Your task to perform on an android device: turn on javascript in the chrome app Image 0: 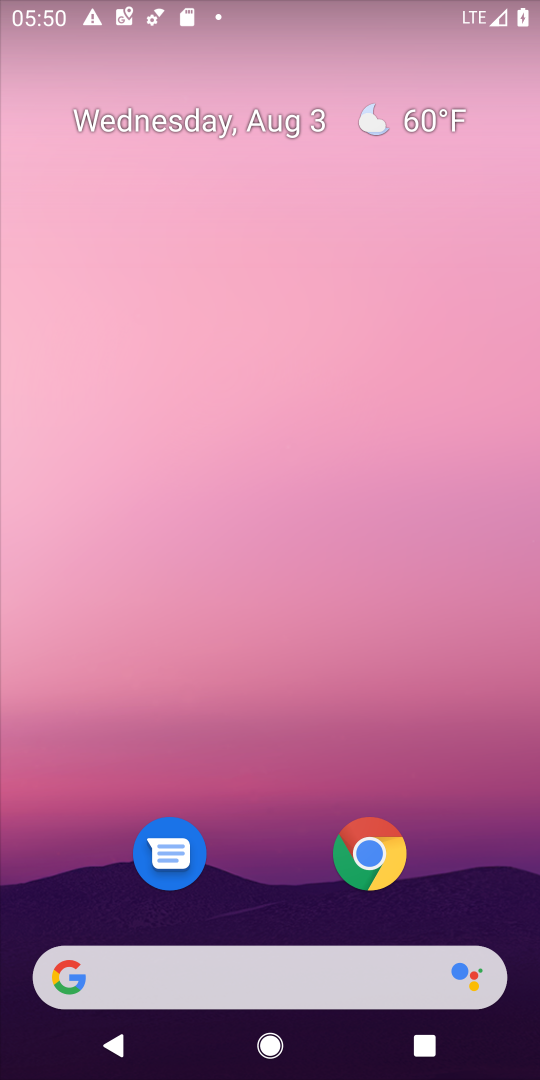
Step 0: click (367, 861)
Your task to perform on an android device: turn on javascript in the chrome app Image 1: 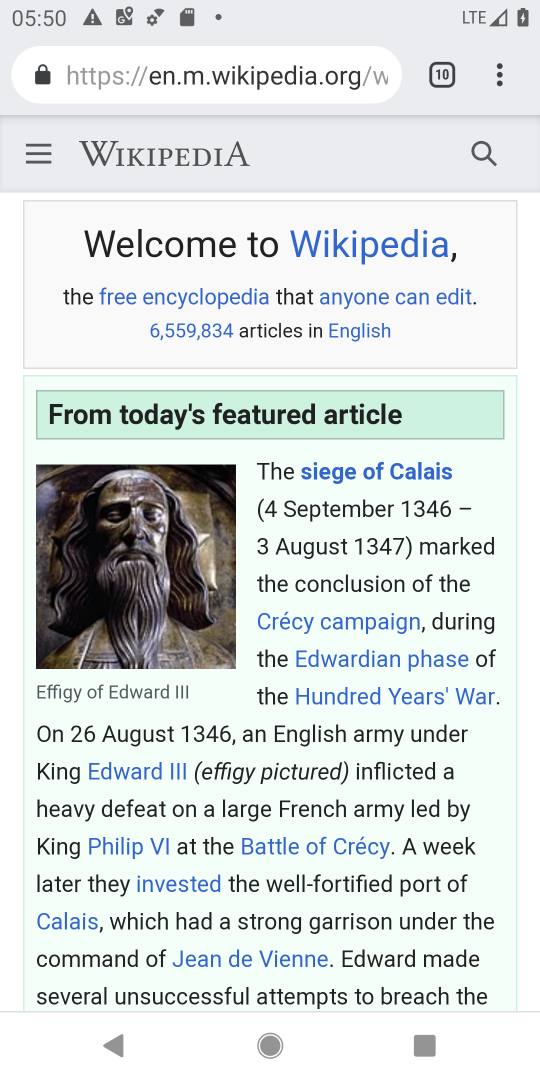
Step 1: click (502, 79)
Your task to perform on an android device: turn on javascript in the chrome app Image 2: 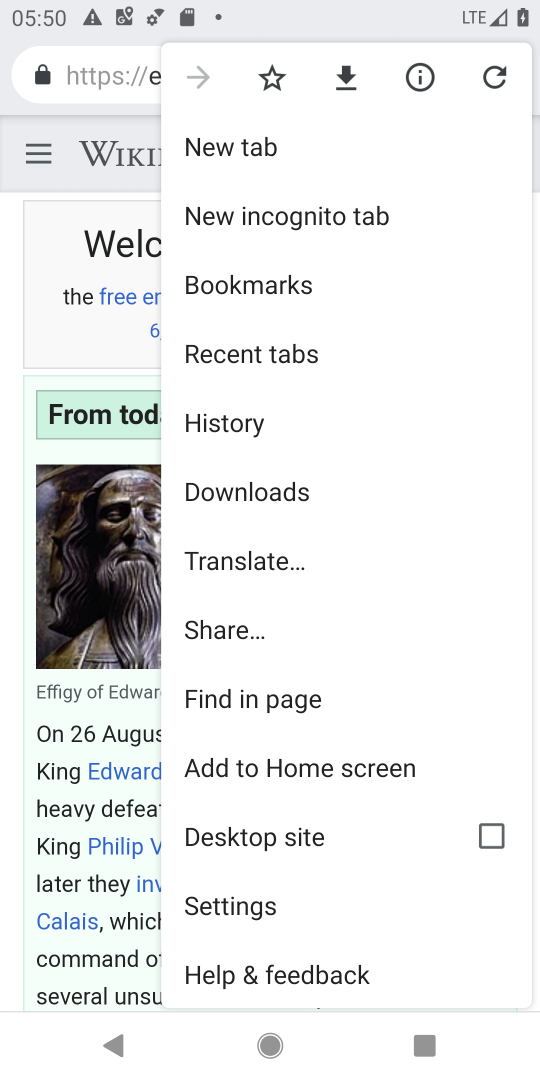
Step 2: click (228, 906)
Your task to perform on an android device: turn on javascript in the chrome app Image 3: 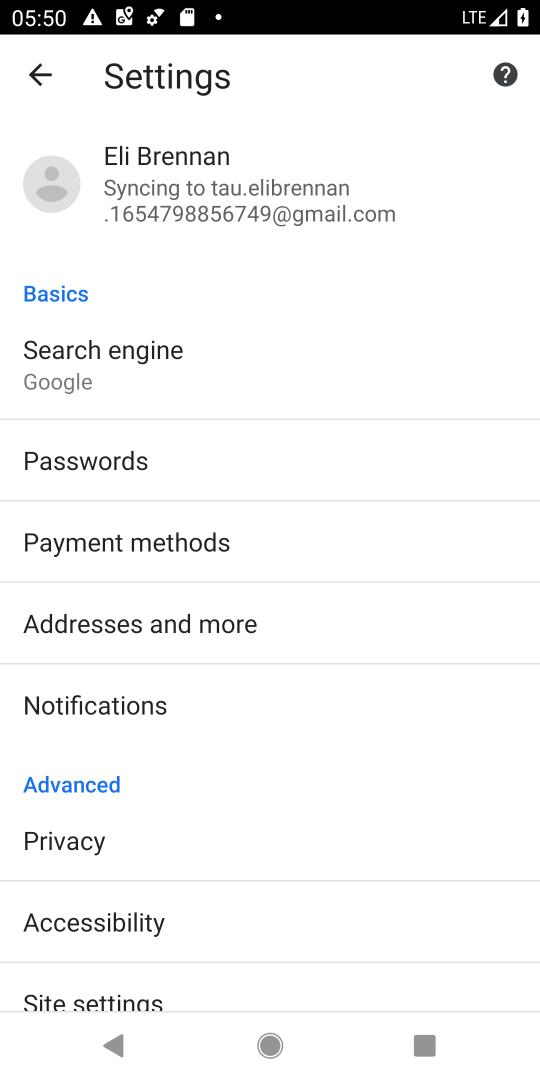
Step 3: click (82, 990)
Your task to perform on an android device: turn on javascript in the chrome app Image 4: 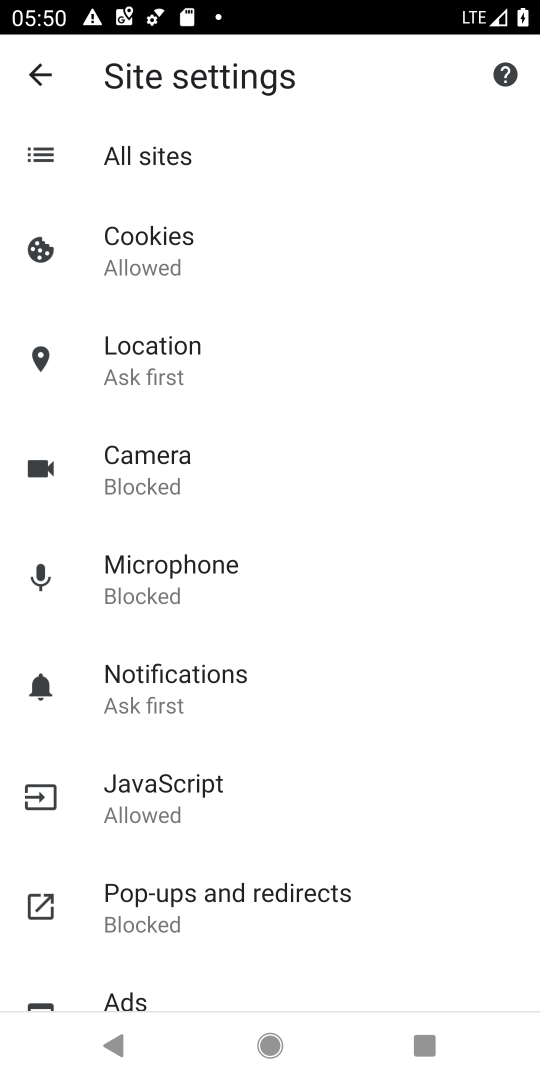
Step 4: click (165, 786)
Your task to perform on an android device: turn on javascript in the chrome app Image 5: 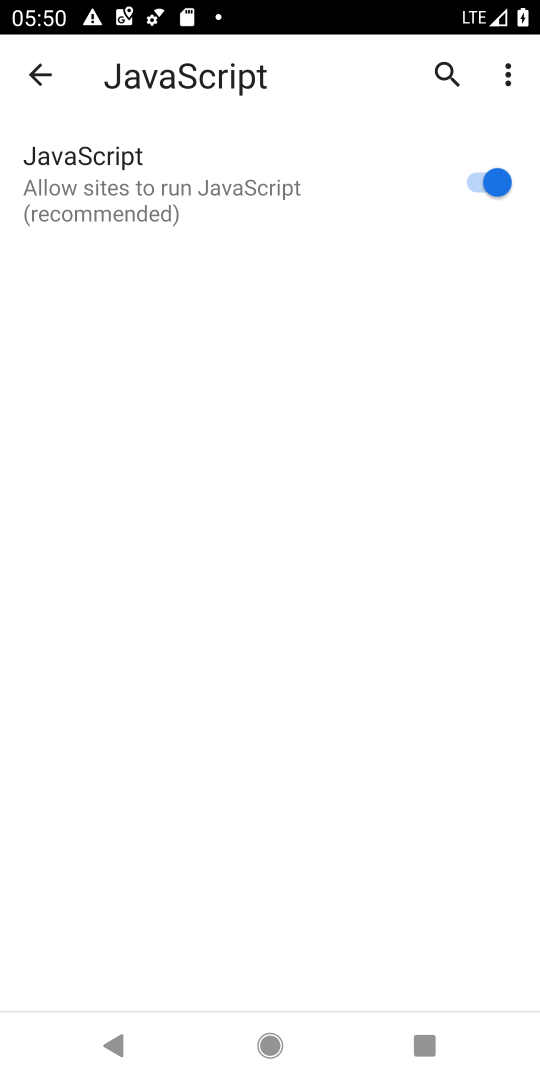
Step 5: task complete